Your task to perform on an android device: What's on the menu at Five Guys? Image 0: 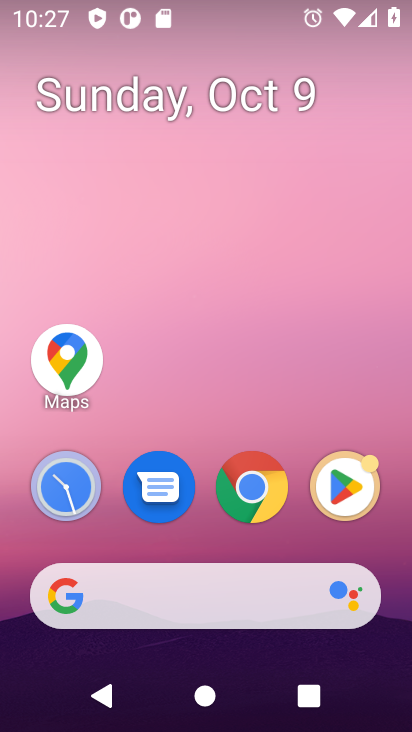
Step 0: click (223, 160)
Your task to perform on an android device: What's on the menu at Five Guys? Image 1: 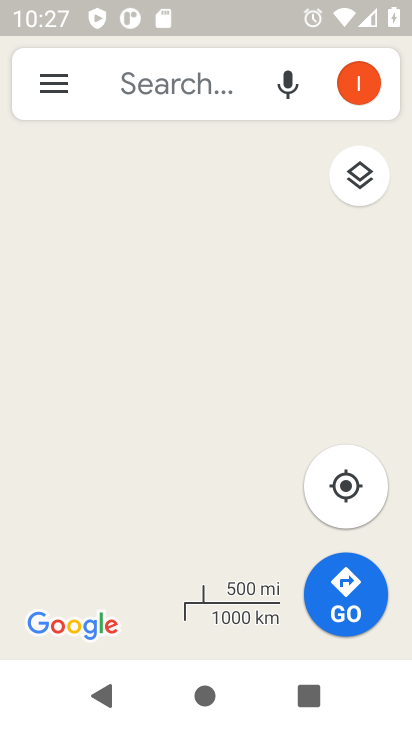
Step 1: press home button
Your task to perform on an android device: What's on the menu at Five Guys? Image 2: 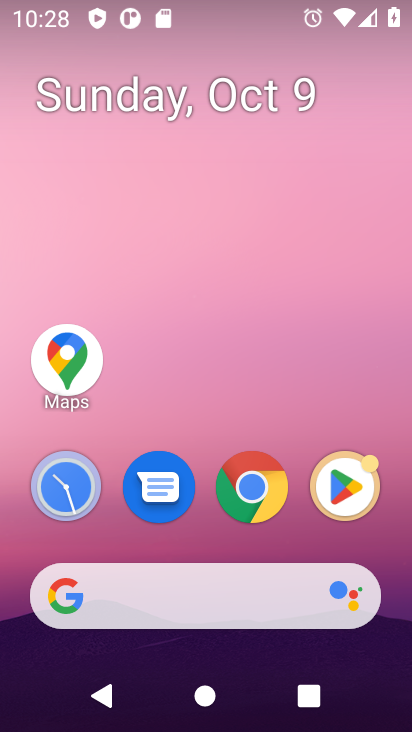
Step 2: drag from (183, 550) to (228, 72)
Your task to perform on an android device: What's on the menu at Five Guys? Image 3: 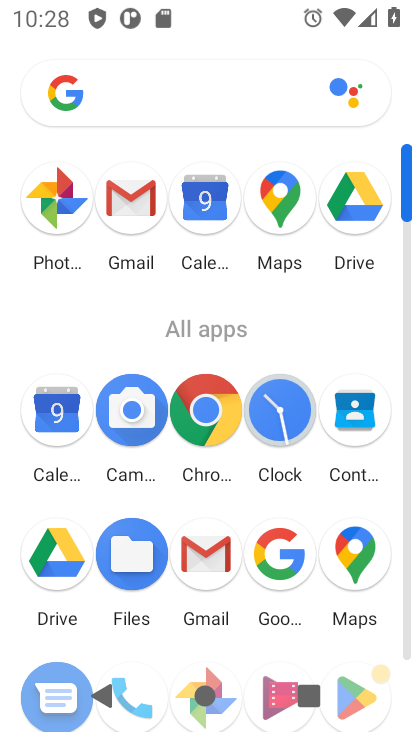
Step 3: click (283, 548)
Your task to perform on an android device: What's on the menu at Five Guys? Image 4: 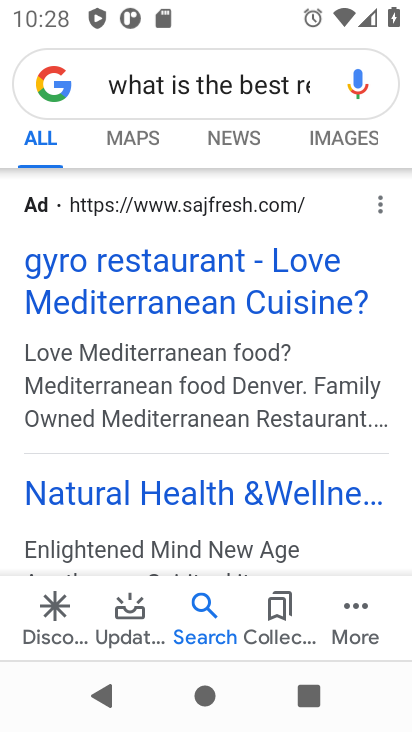
Step 4: click (249, 79)
Your task to perform on an android device: What's on the menu at Five Guys? Image 5: 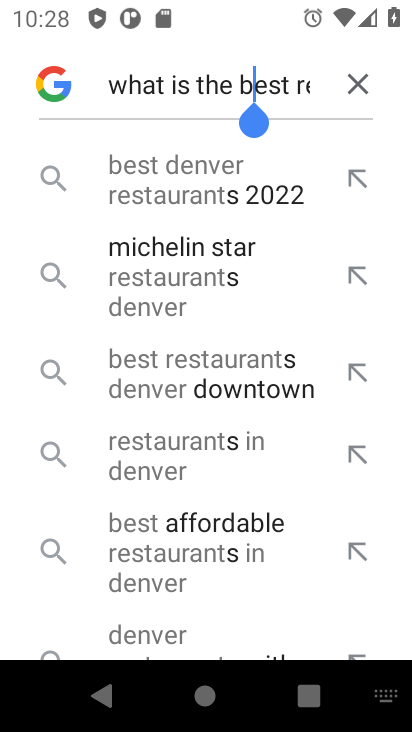
Step 5: click (356, 78)
Your task to perform on an android device: What's on the menu at Five Guys? Image 6: 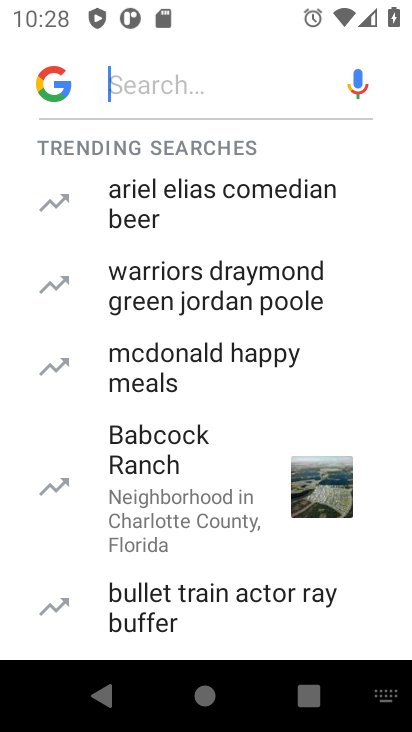
Step 6: type "What's on the menu at Five Guys?"
Your task to perform on an android device: What's on the menu at Five Guys? Image 7: 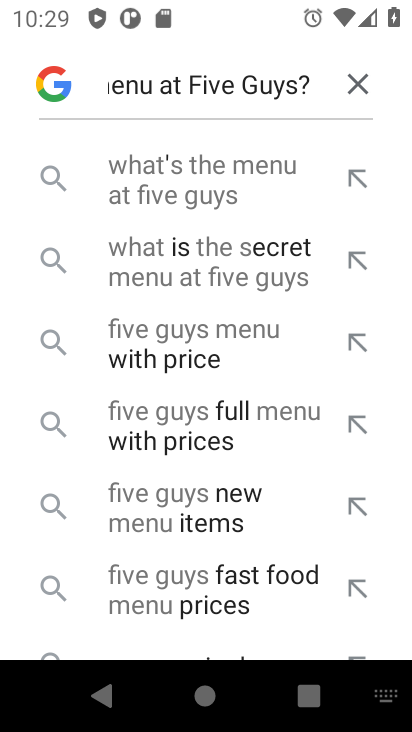
Step 7: type ""
Your task to perform on an android device: What's on the menu at Five Guys? Image 8: 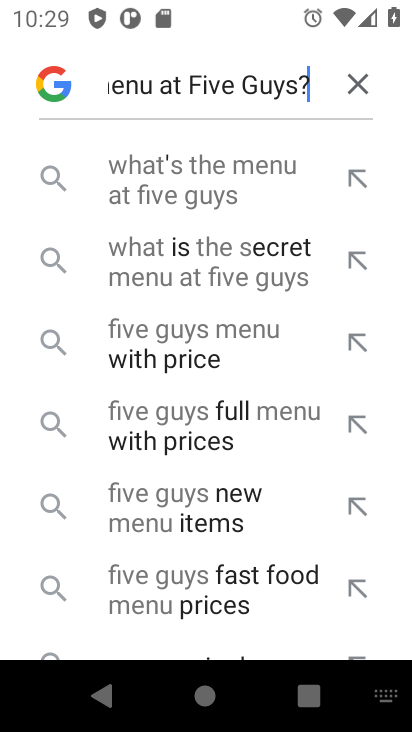
Step 8: click (219, 175)
Your task to perform on an android device: What's on the menu at Five Guys? Image 9: 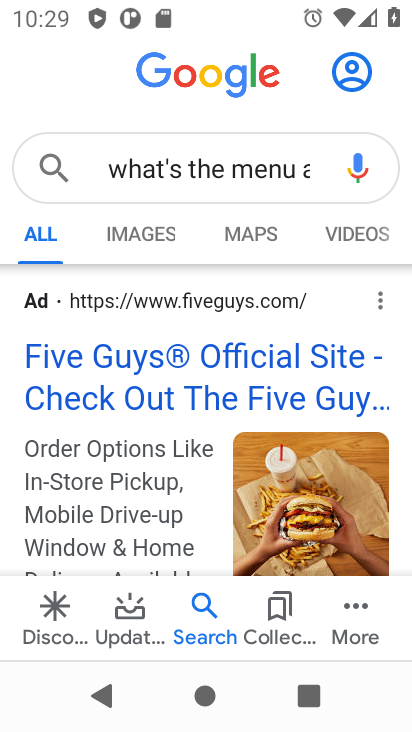
Step 9: drag from (203, 531) to (219, 340)
Your task to perform on an android device: What's on the menu at Five Guys? Image 10: 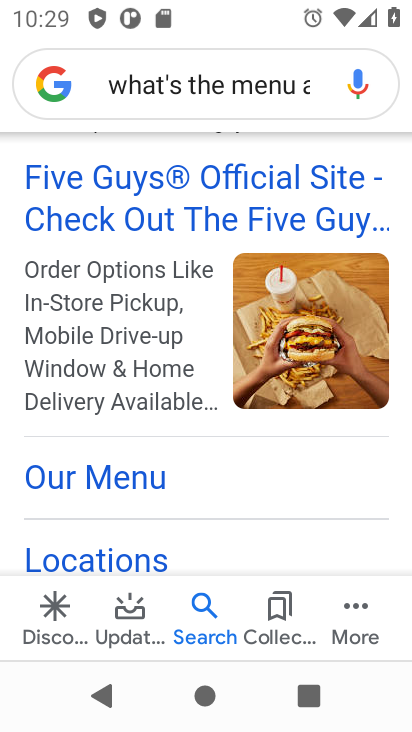
Step 10: click (175, 479)
Your task to perform on an android device: What's on the menu at Five Guys? Image 11: 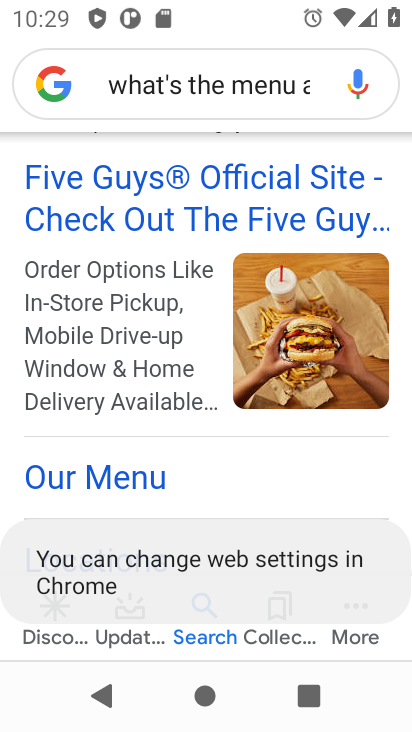
Step 11: task complete